Your task to perform on an android device: turn off smart reply in the gmail app Image 0: 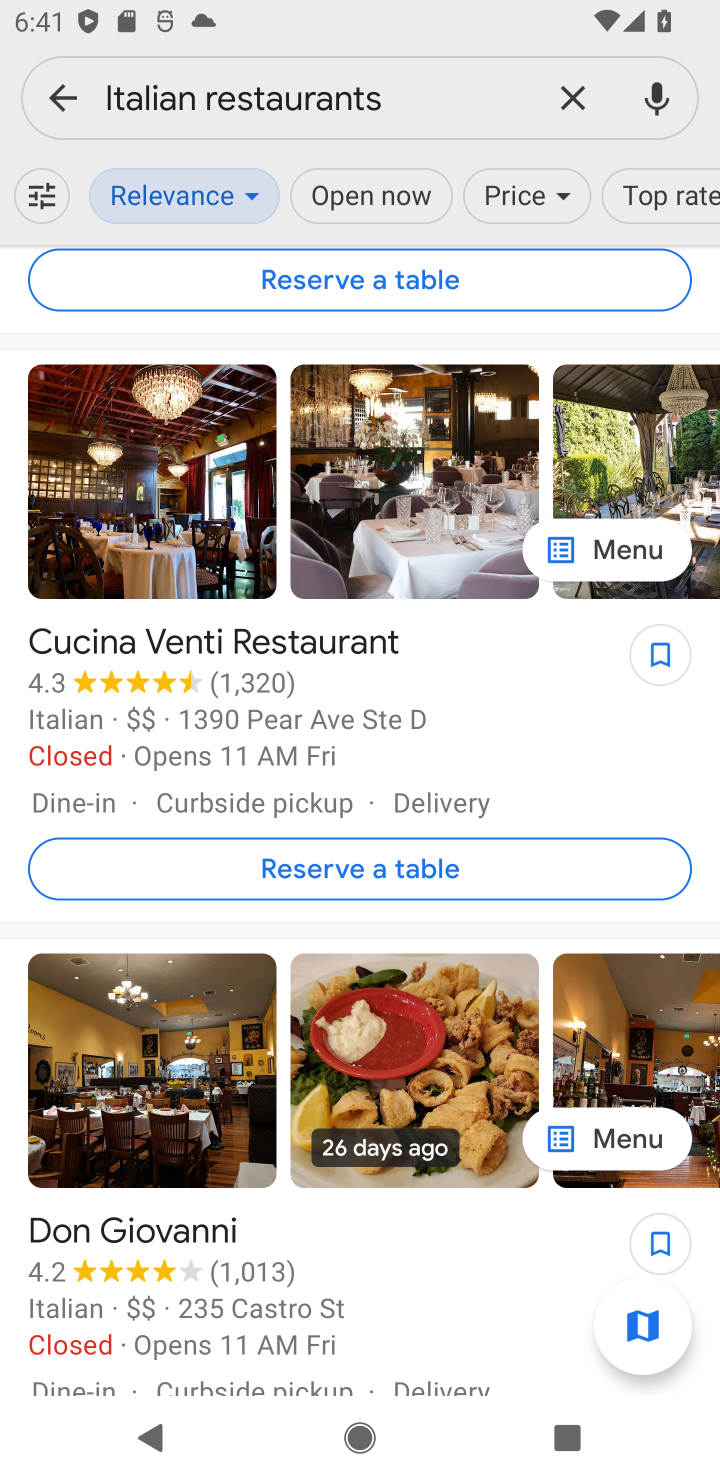
Step 0: press home button
Your task to perform on an android device: turn off smart reply in the gmail app Image 1: 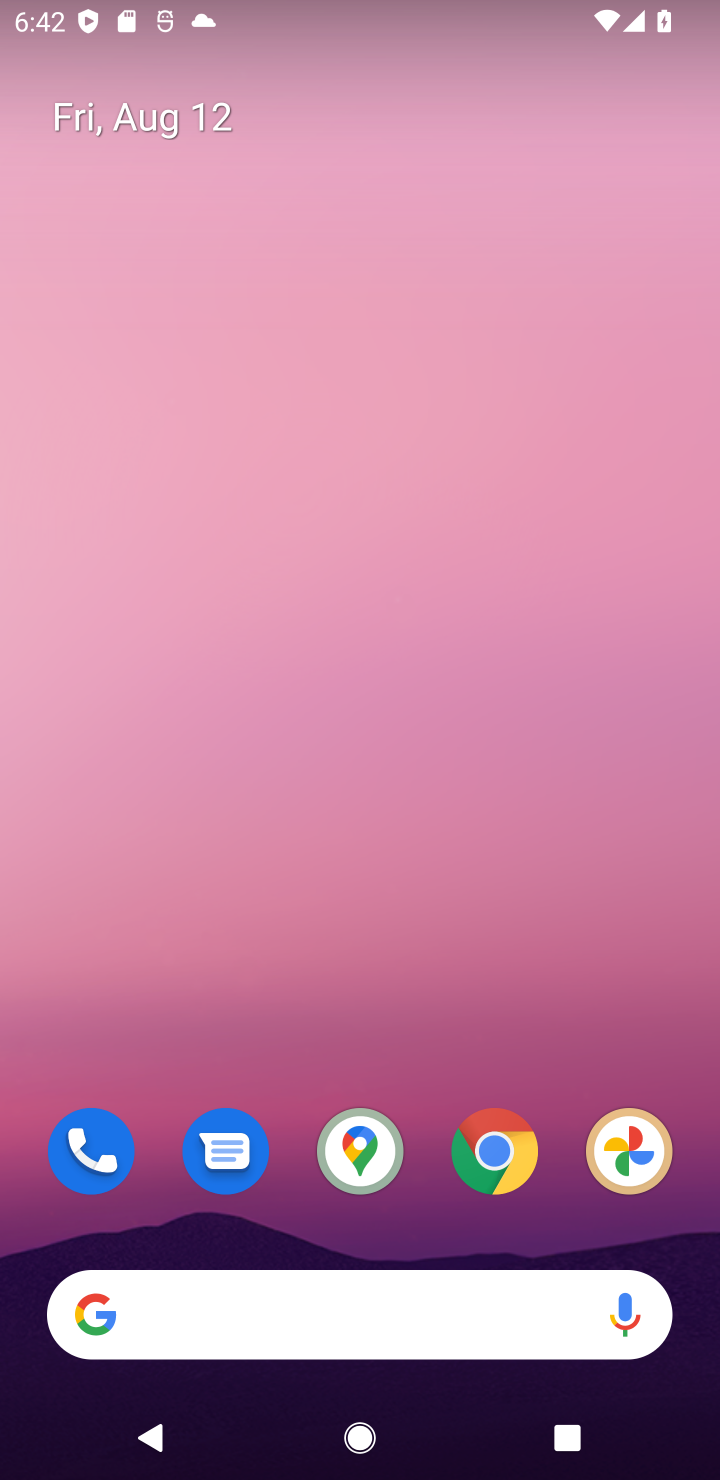
Step 1: drag from (419, 1009) to (347, 12)
Your task to perform on an android device: turn off smart reply in the gmail app Image 2: 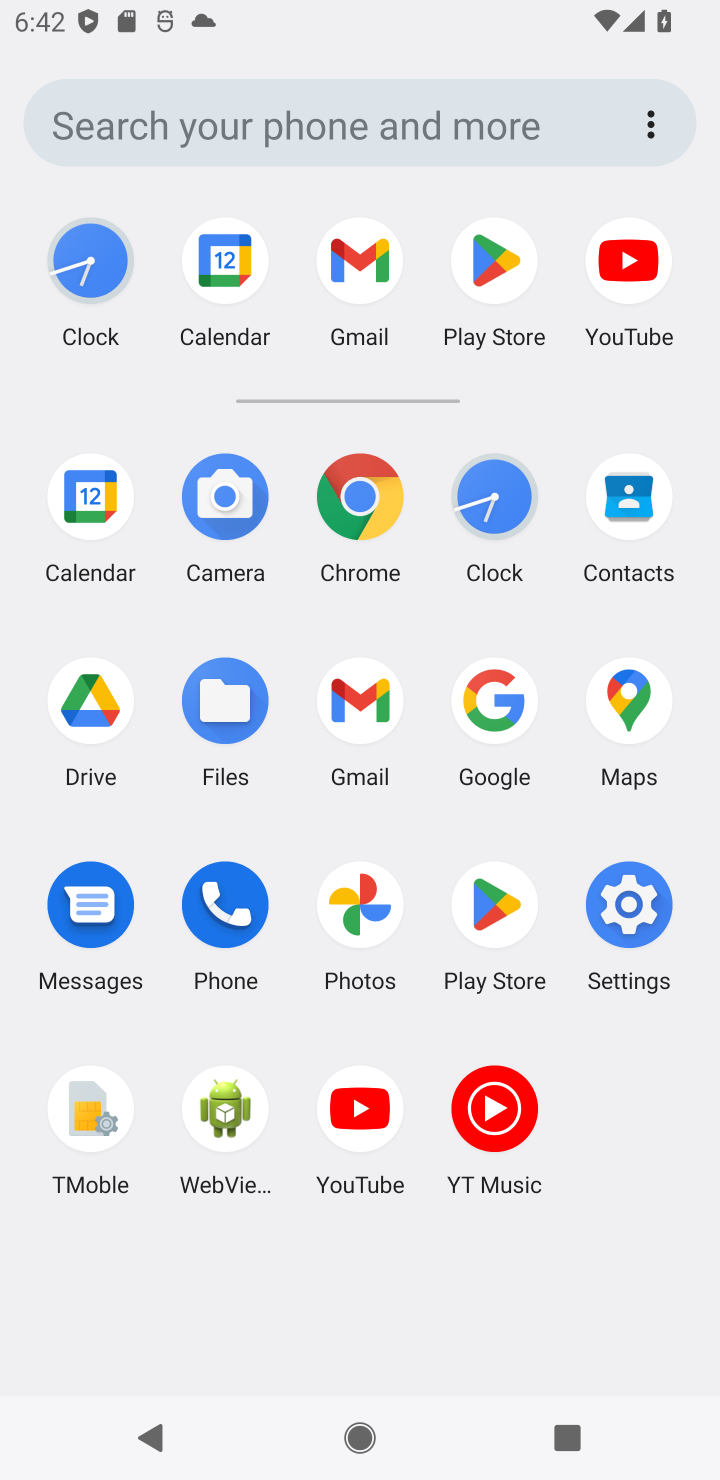
Step 2: click (632, 899)
Your task to perform on an android device: turn off smart reply in the gmail app Image 3: 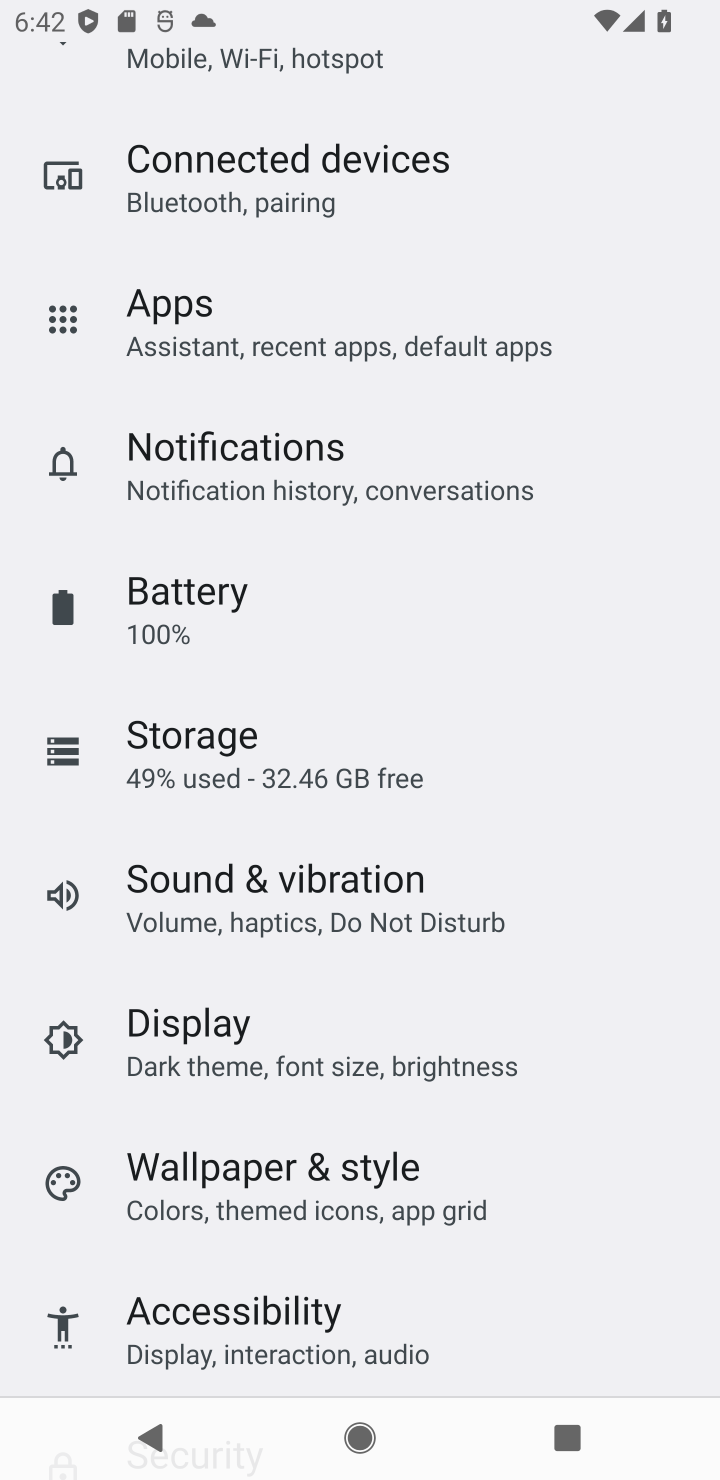
Step 3: drag from (514, 298) to (389, 387)
Your task to perform on an android device: turn off smart reply in the gmail app Image 4: 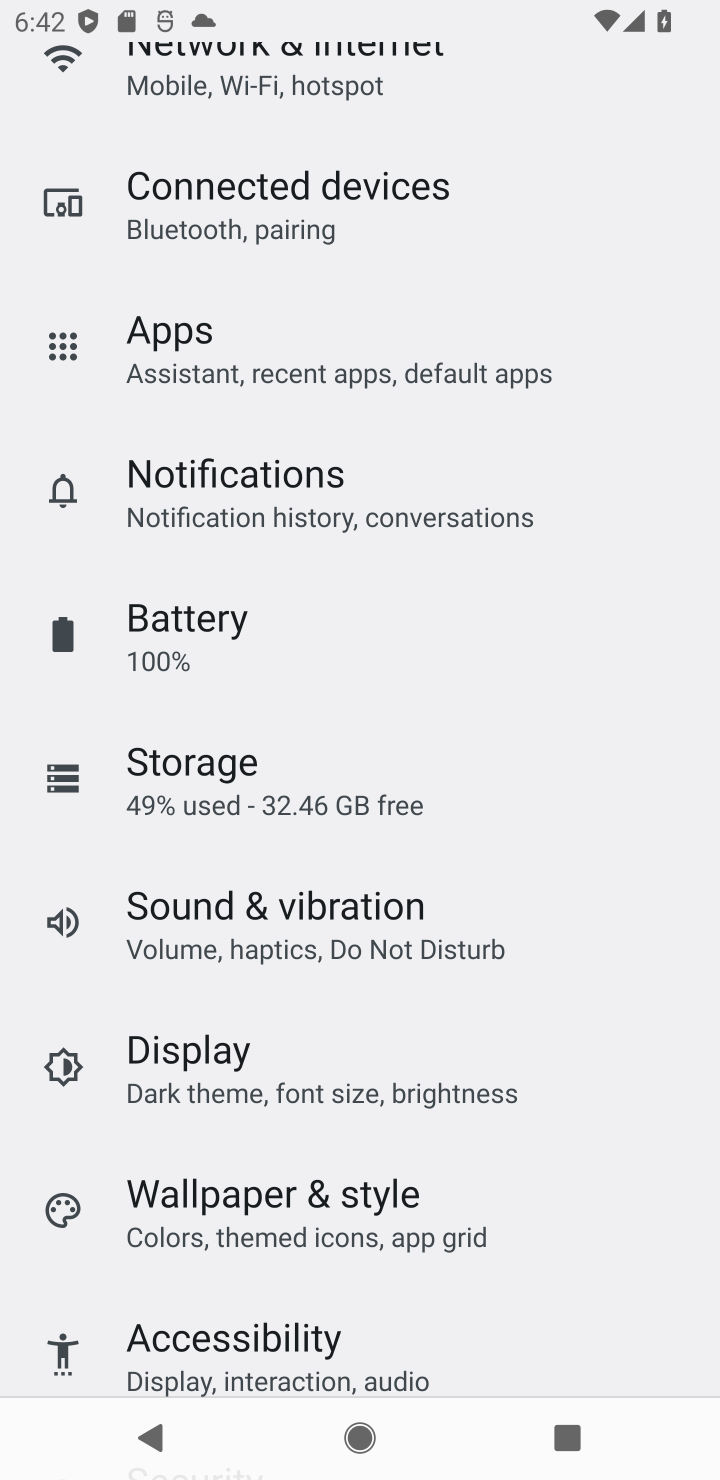
Step 4: press home button
Your task to perform on an android device: turn off smart reply in the gmail app Image 5: 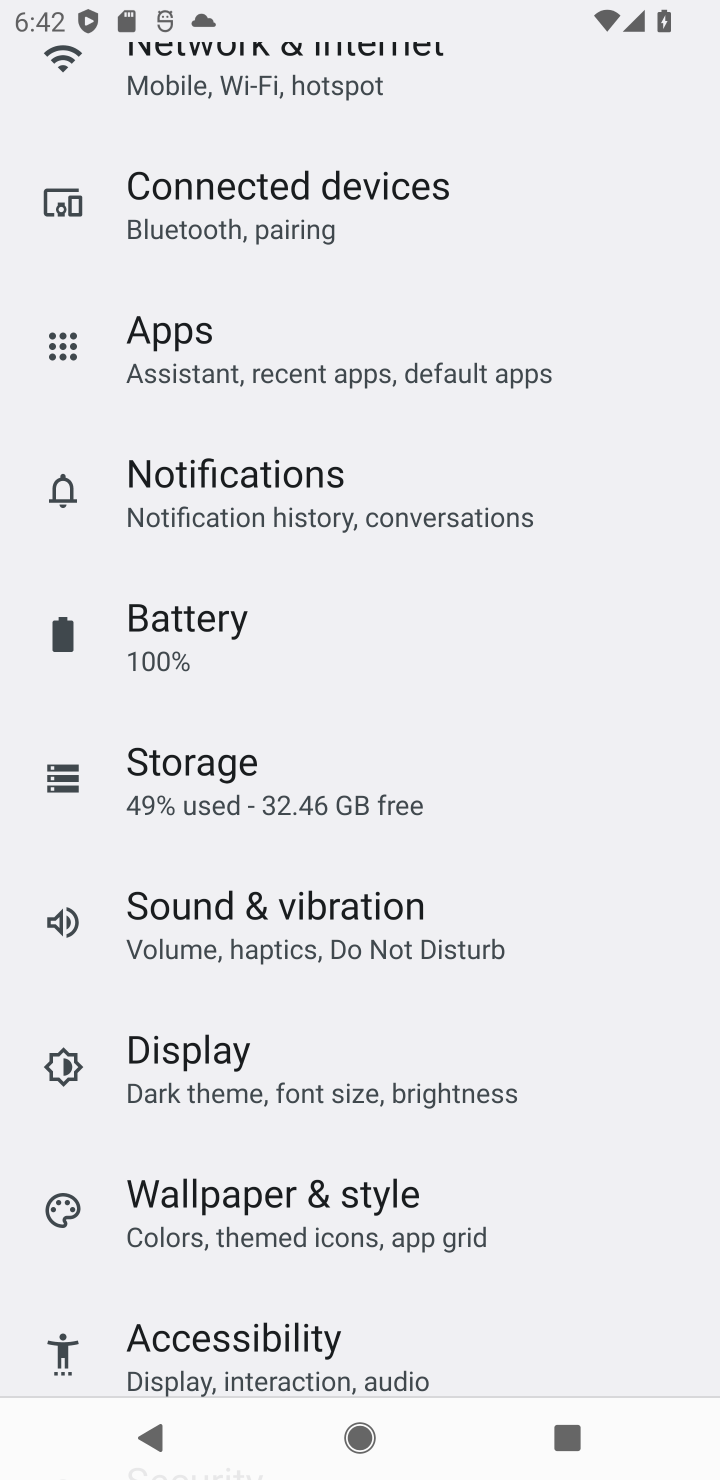
Step 5: press home button
Your task to perform on an android device: turn off smart reply in the gmail app Image 6: 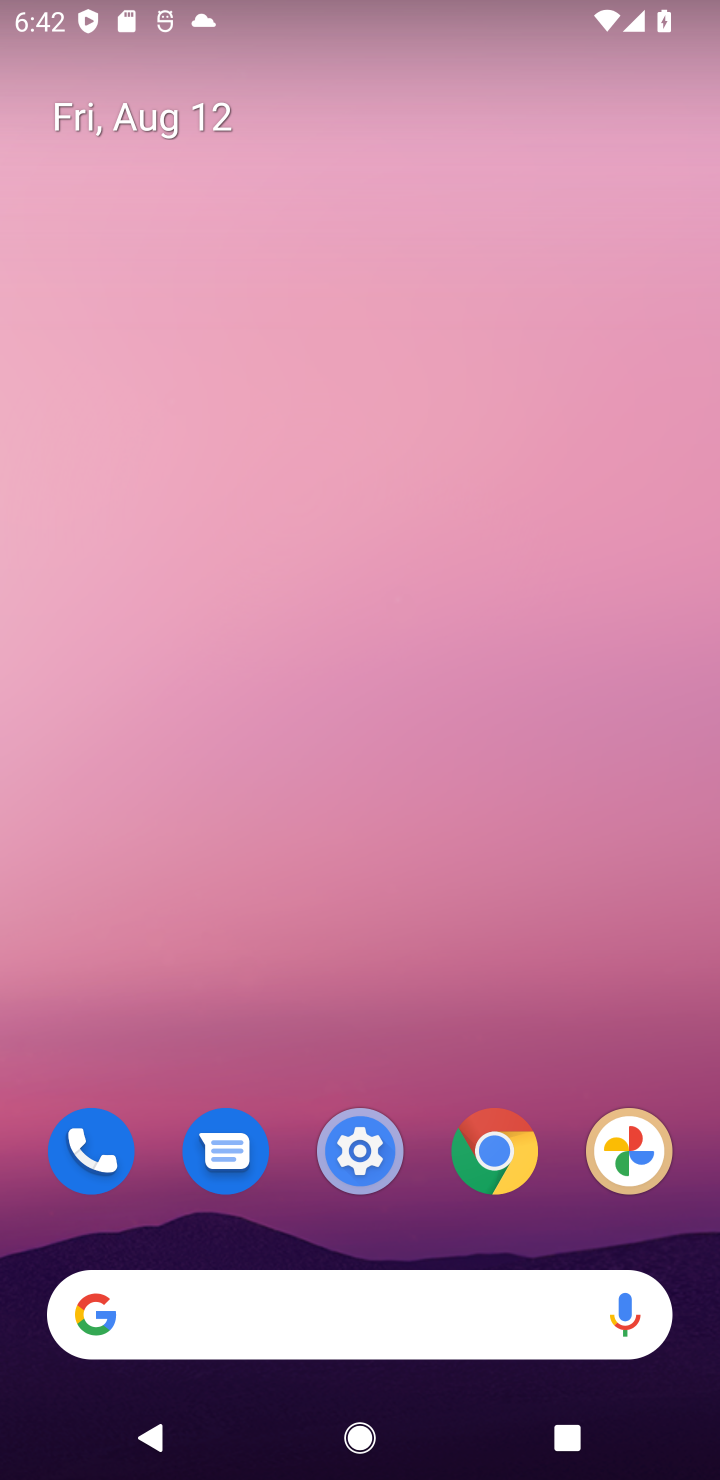
Step 6: drag from (418, 906) to (361, 4)
Your task to perform on an android device: turn off smart reply in the gmail app Image 7: 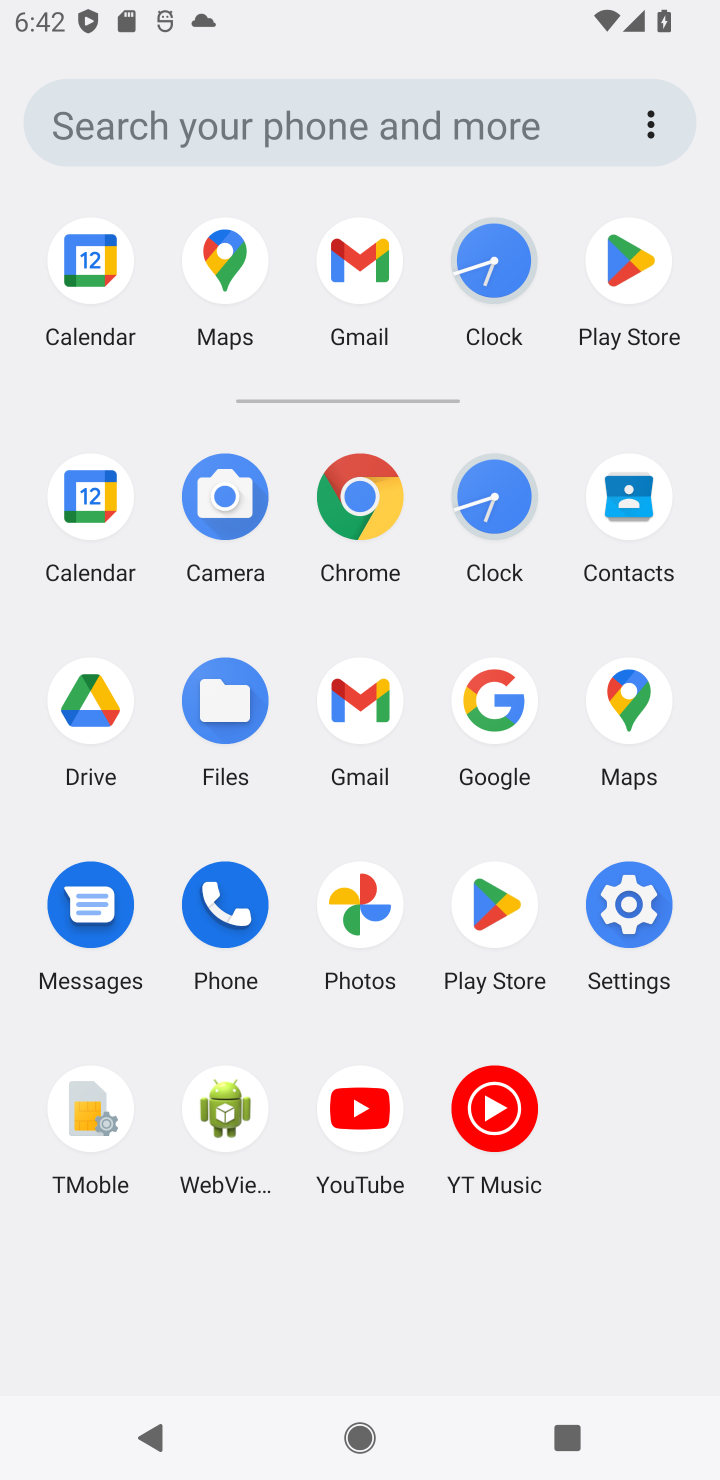
Step 7: click (385, 710)
Your task to perform on an android device: turn off smart reply in the gmail app Image 8: 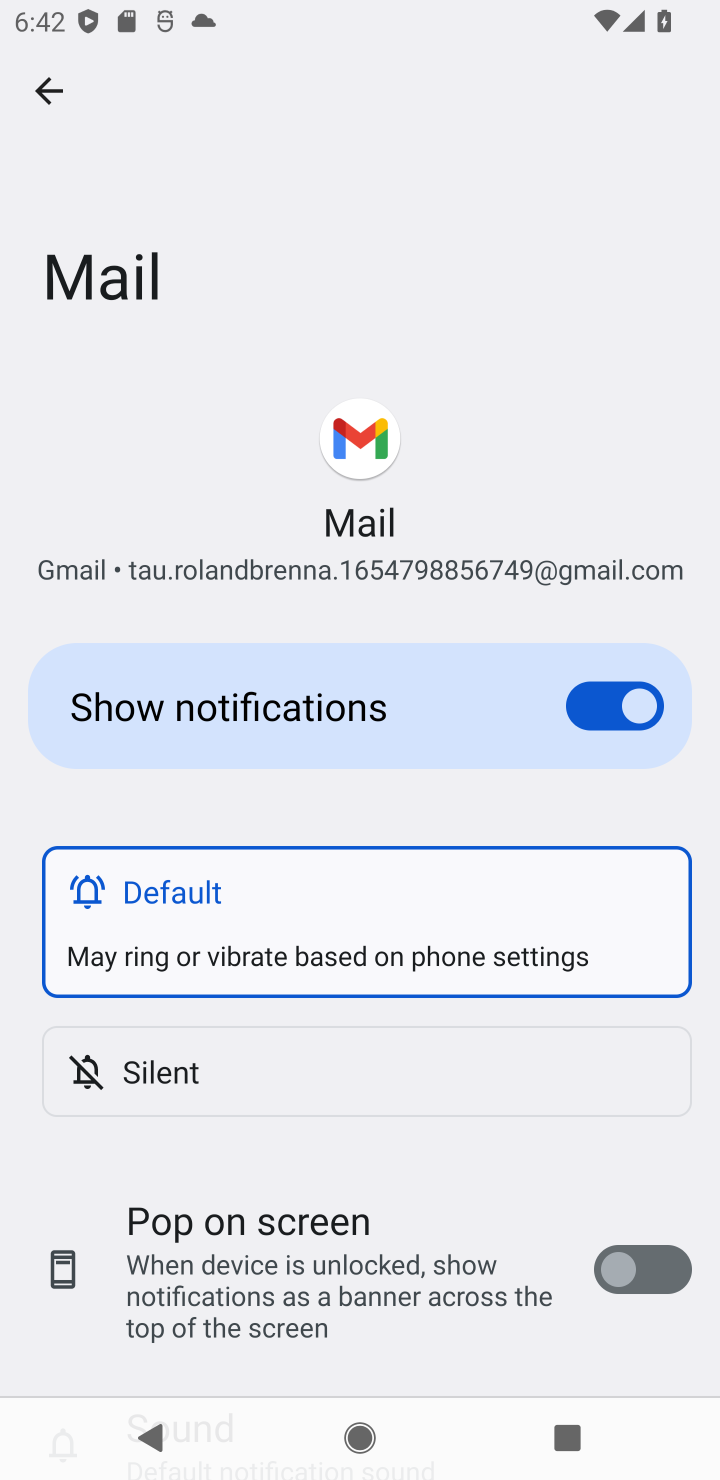
Step 8: press back button
Your task to perform on an android device: turn off smart reply in the gmail app Image 9: 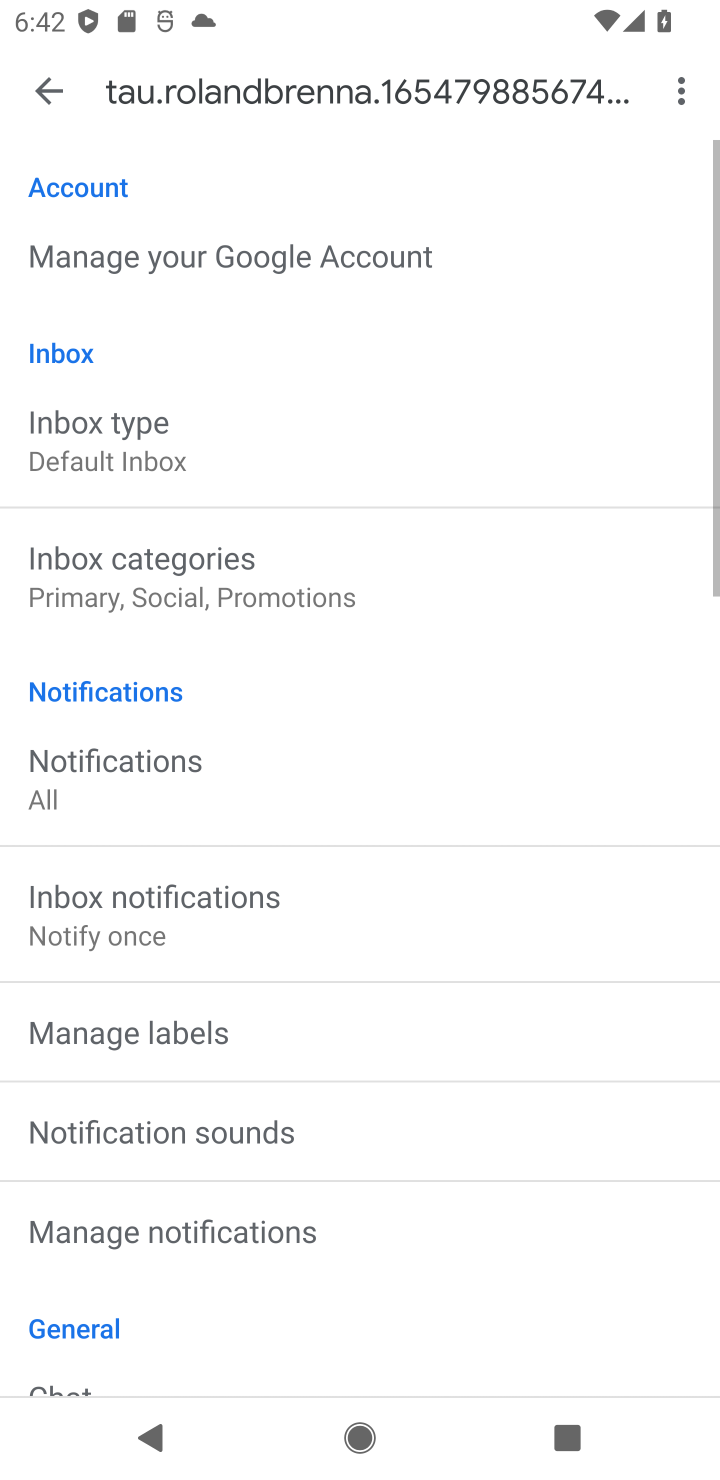
Step 9: drag from (450, 1148) to (454, 268)
Your task to perform on an android device: turn off smart reply in the gmail app Image 10: 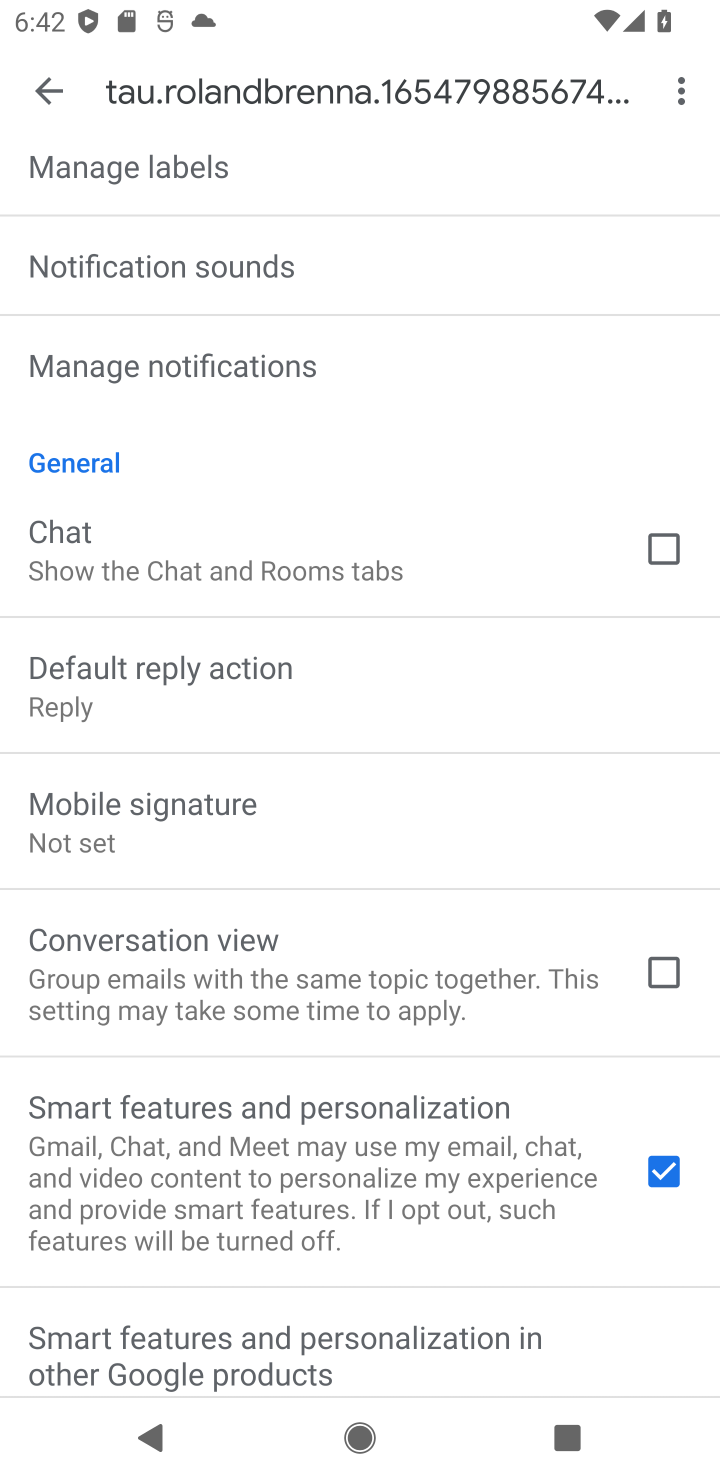
Step 10: drag from (389, 1050) to (456, 317)
Your task to perform on an android device: turn off smart reply in the gmail app Image 11: 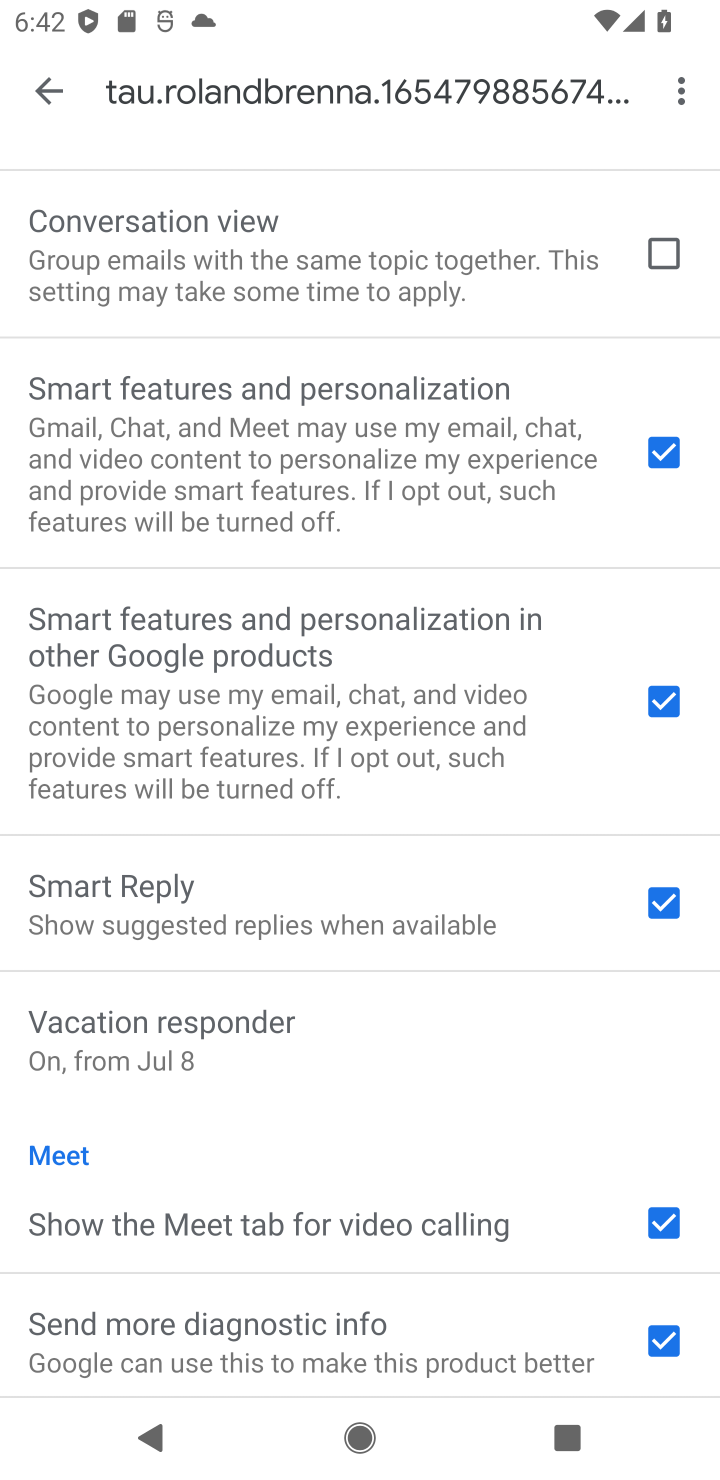
Step 11: click (665, 898)
Your task to perform on an android device: turn off smart reply in the gmail app Image 12: 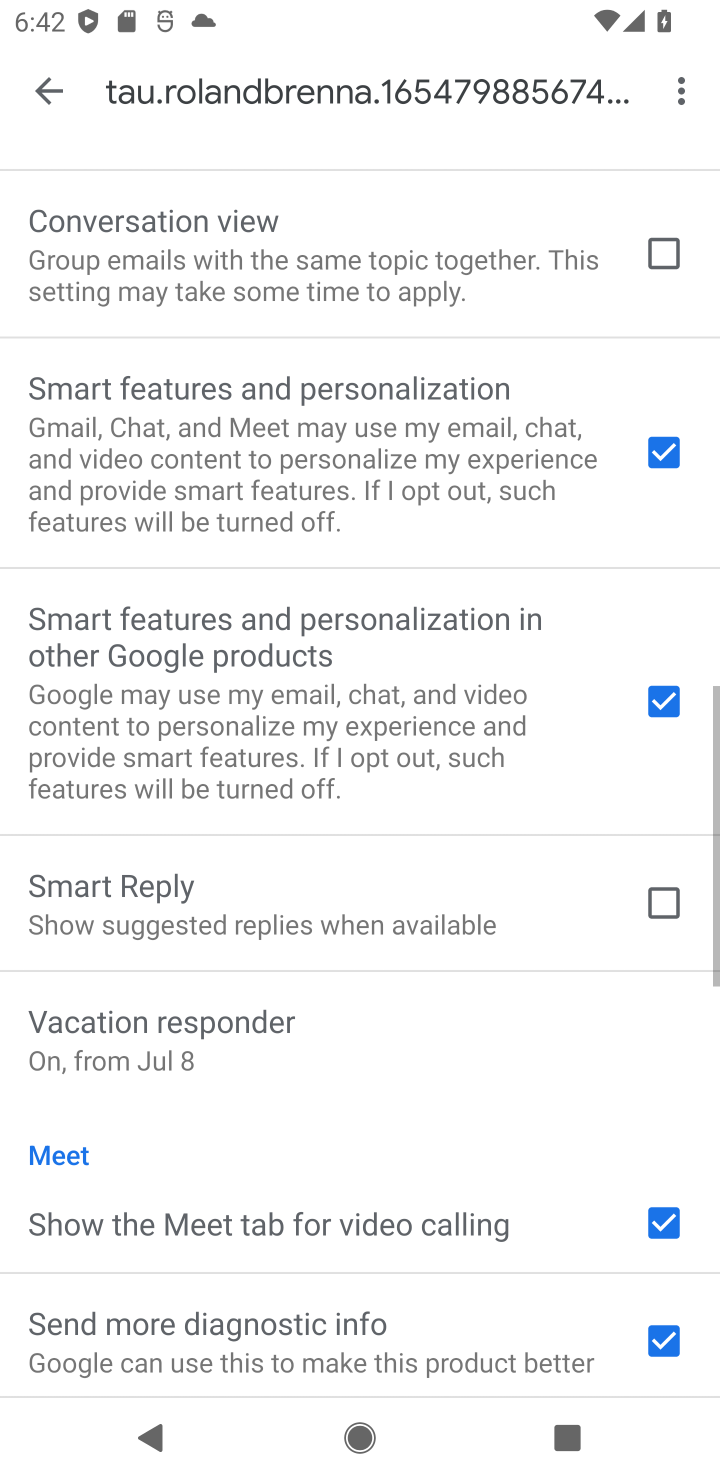
Step 12: task complete